Your task to perform on an android device: Open Android settings Image 0: 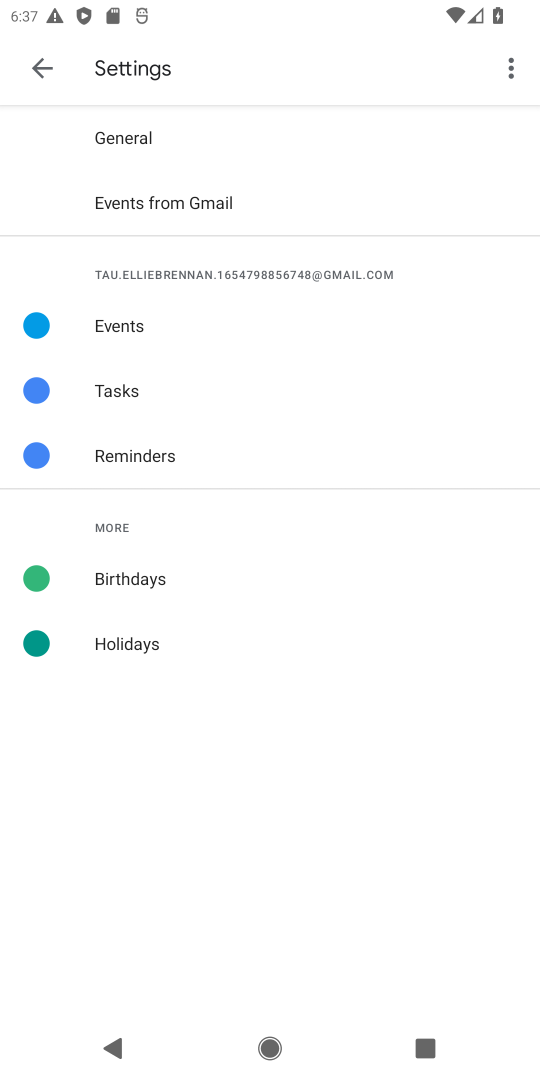
Step 0: press home button
Your task to perform on an android device: Open Android settings Image 1: 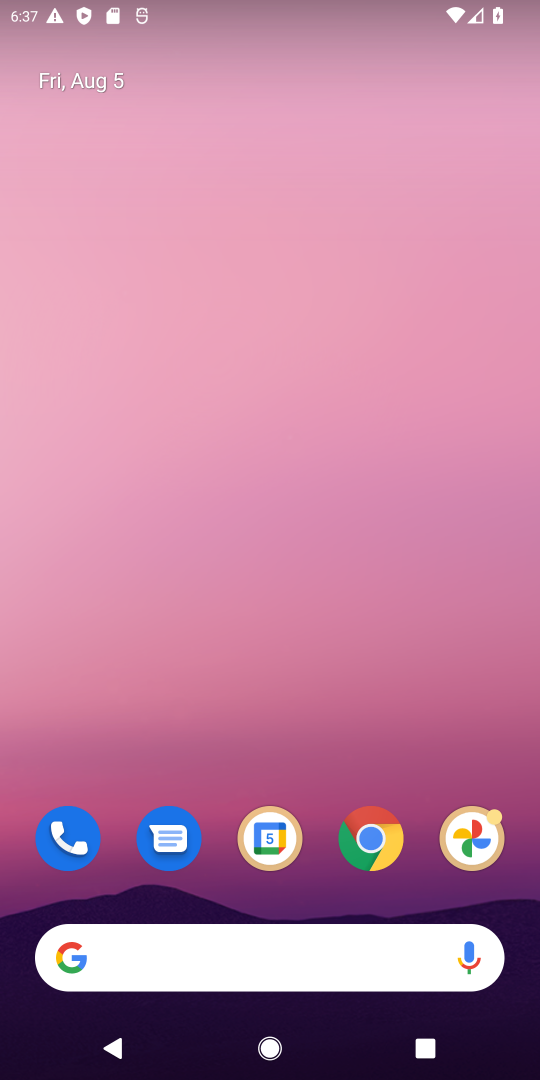
Step 1: drag from (331, 752) to (367, 56)
Your task to perform on an android device: Open Android settings Image 2: 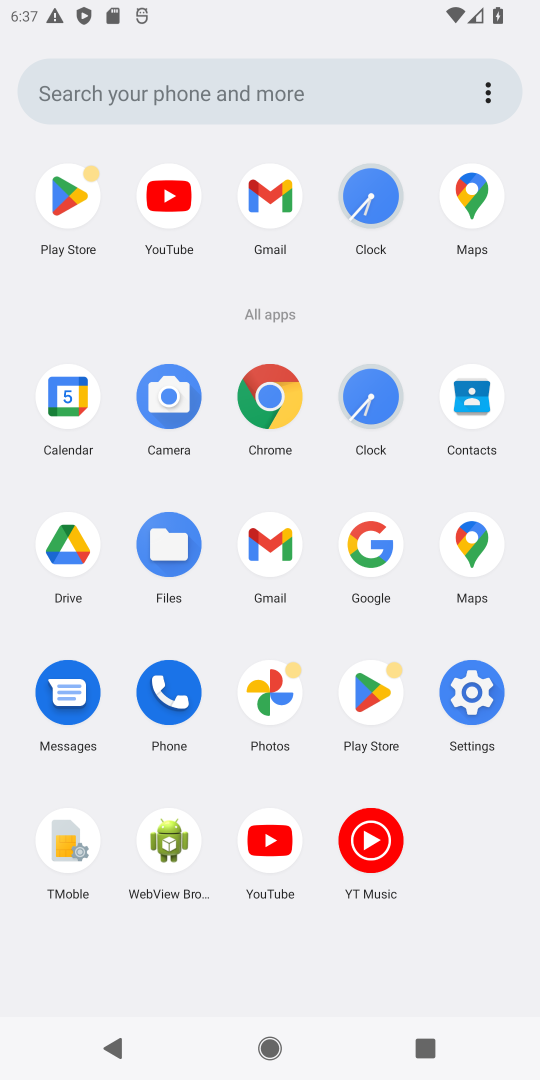
Step 2: click (472, 672)
Your task to perform on an android device: Open Android settings Image 3: 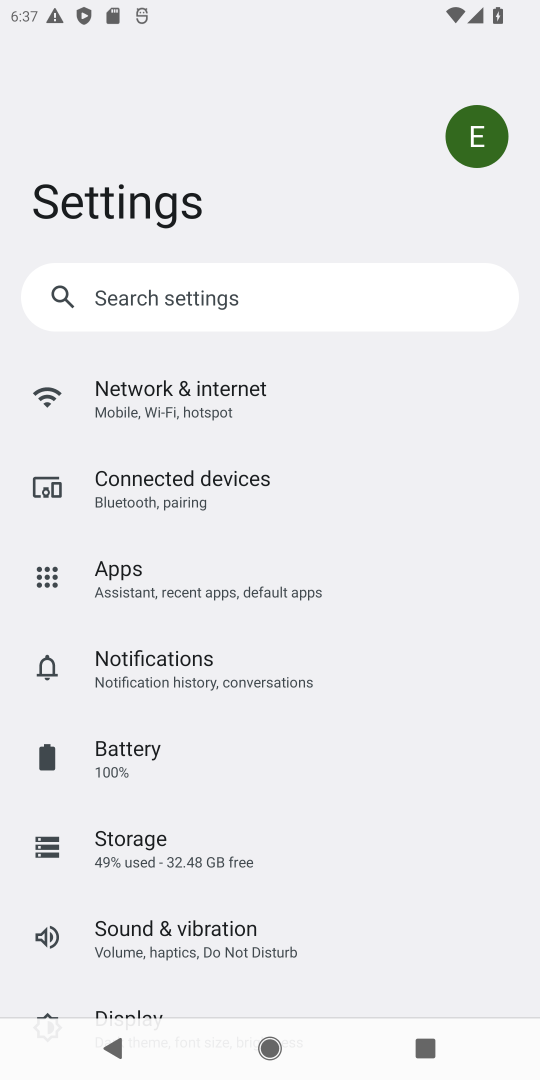
Step 3: task complete